Your task to perform on an android device: Go to accessibility settings Image 0: 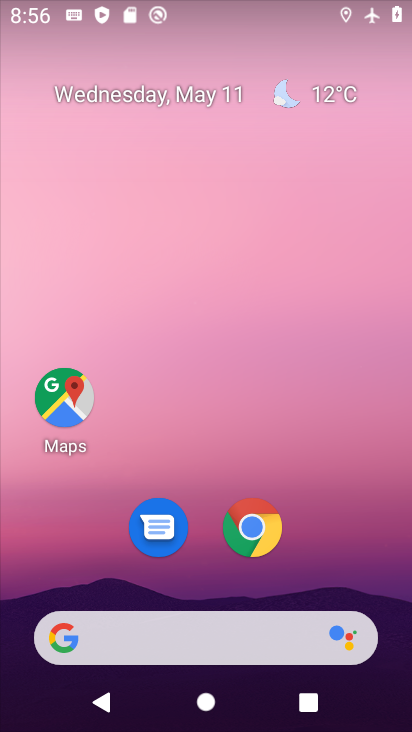
Step 0: drag from (383, 553) to (339, 57)
Your task to perform on an android device: Go to accessibility settings Image 1: 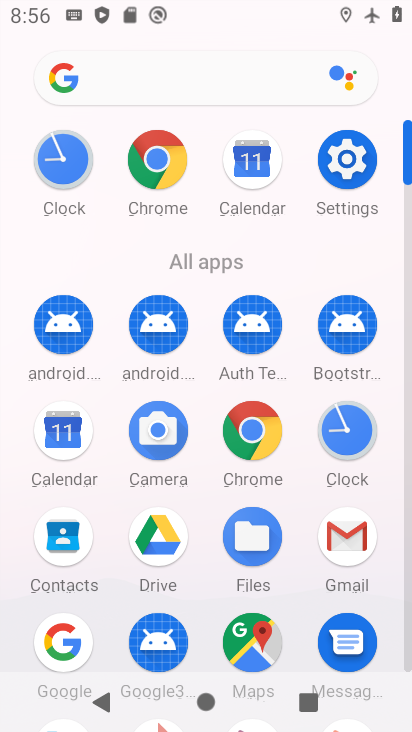
Step 1: click (352, 135)
Your task to perform on an android device: Go to accessibility settings Image 2: 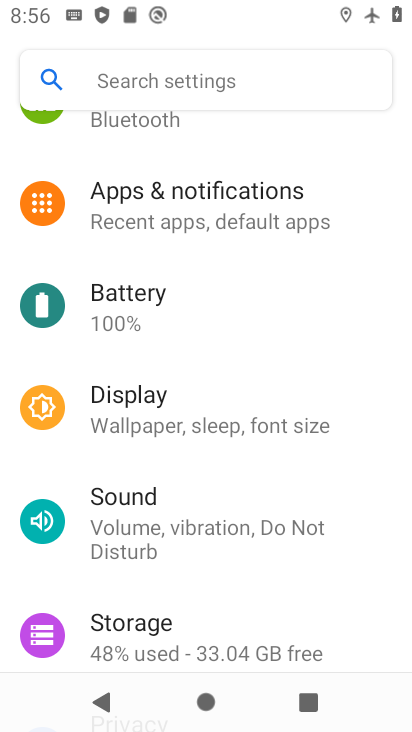
Step 2: drag from (213, 534) to (381, 26)
Your task to perform on an android device: Go to accessibility settings Image 3: 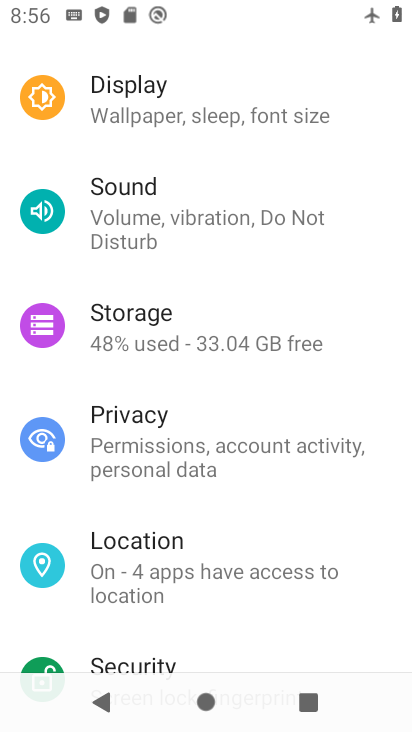
Step 3: drag from (289, 656) to (235, 92)
Your task to perform on an android device: Go to accessibility settings Image 4: 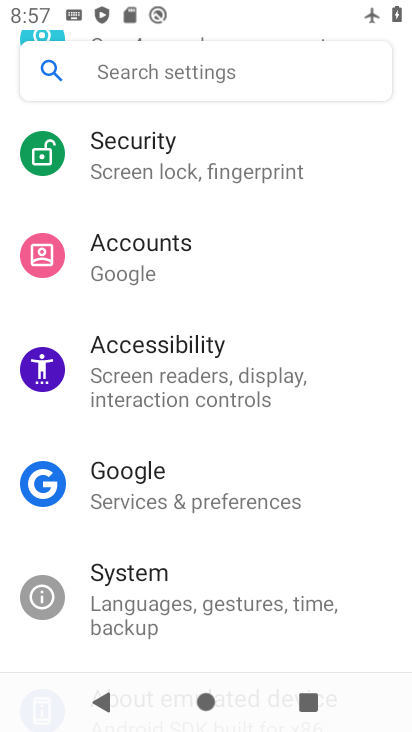
Step 4: click (114, 352)
Your task to perform on an android device: Go to accessibility settings Image 5: 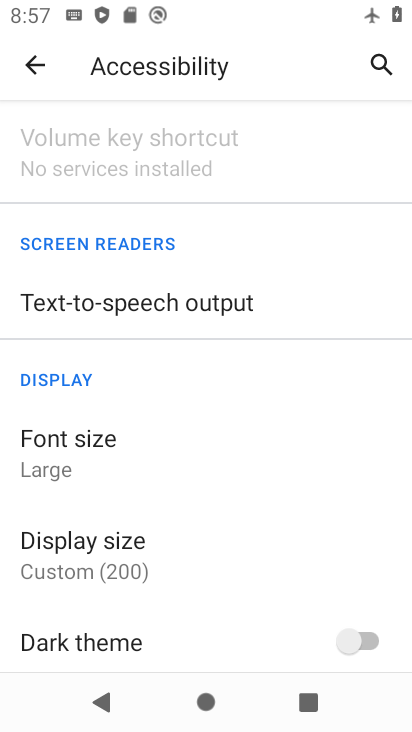
Step 5: task complete